Your task to perform on an android device: manage bookmarks in the chrome app Image 0: 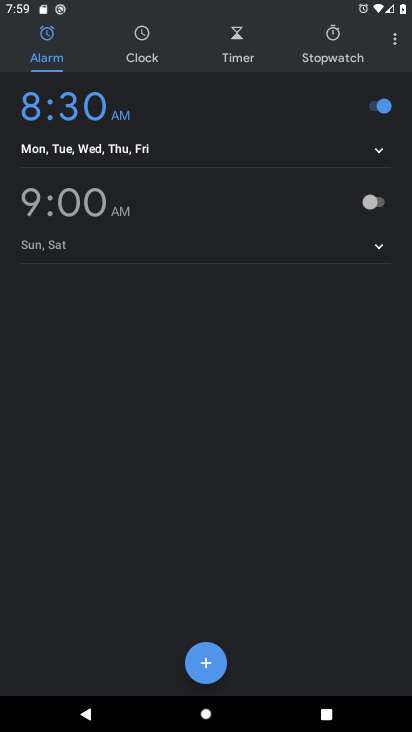
Step 0: press home button
Your task to perform on an android device: manage bookmarks in the chrome app Image 1: 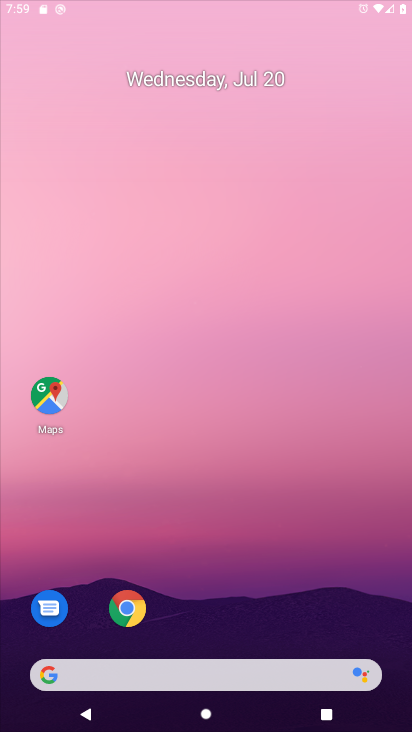
Step 1: drag from (280, 643) to (275, 364)
Your task to perform on an android device: manage bookmarks in the chrome app Image 2: 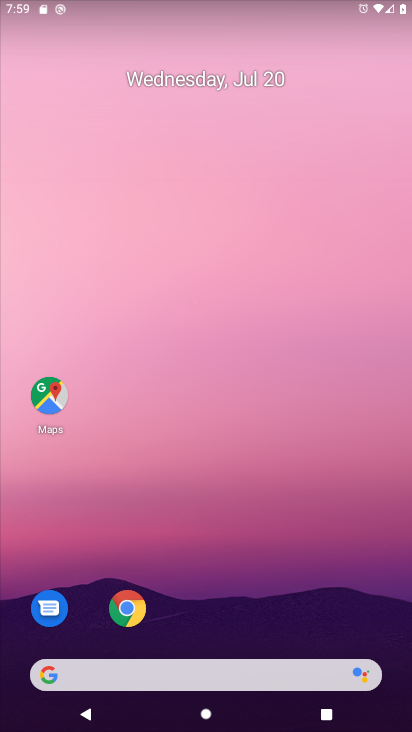
Step 2: click (120, 621)
Your task to perform on an android device: manage bookmarks in the chrome app Image 3: 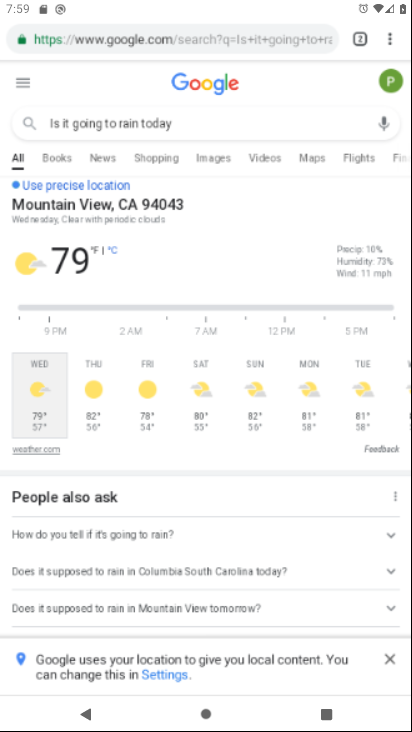
Step 3: click (390, 31)
Your task to perform on an android device: manage bookmarks in the chrome app Image 4: 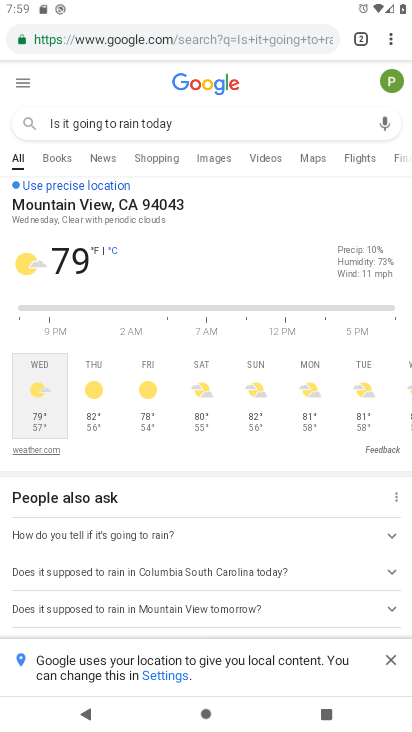
Step 4: click (395, 32)
Your task to perform on an android device: manage bookmarks in the chrome app Image 5: 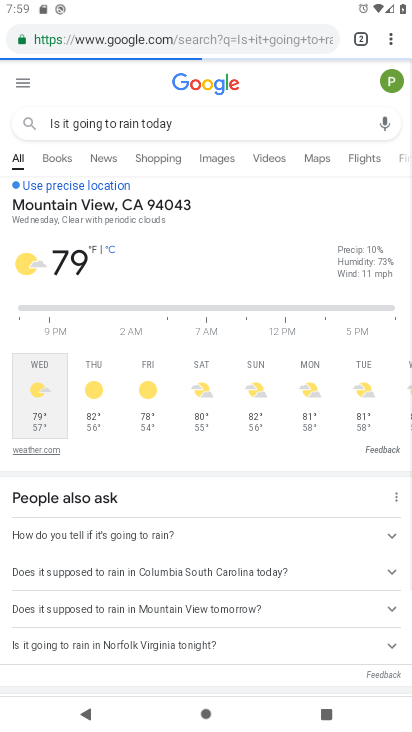
Step 5: click (394, 34)
Your task to perform on an android device: manage bookmarks in the chrome app Image 6: 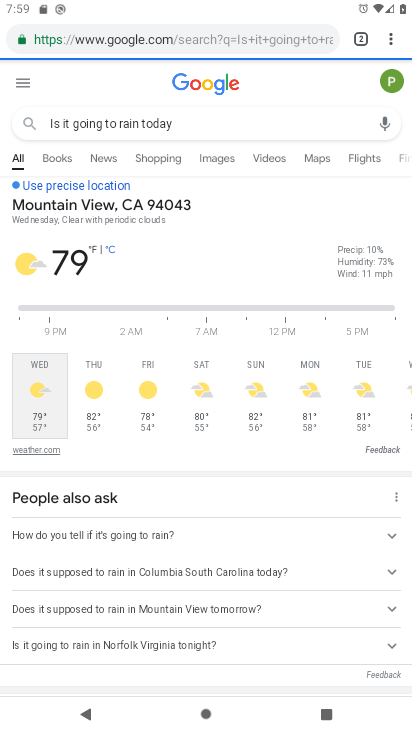
Step 6: click (383, 40)
Your task to perform on an android device: manage bookmarks in the chrome app Image 7: 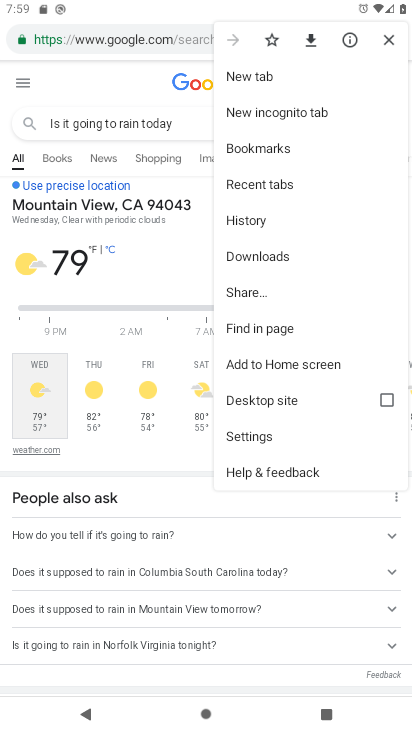
Step 7: click (274, 161)
Your task to perform on an android device: manage bookmarks in the chrome app Image 8: 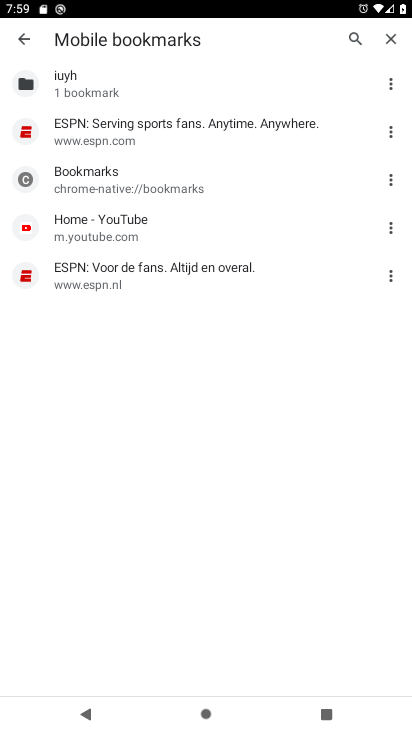
Step 8: click (102, 107)
Your task to perform on an android device: manage bookmarks in the chrome app Image 9: 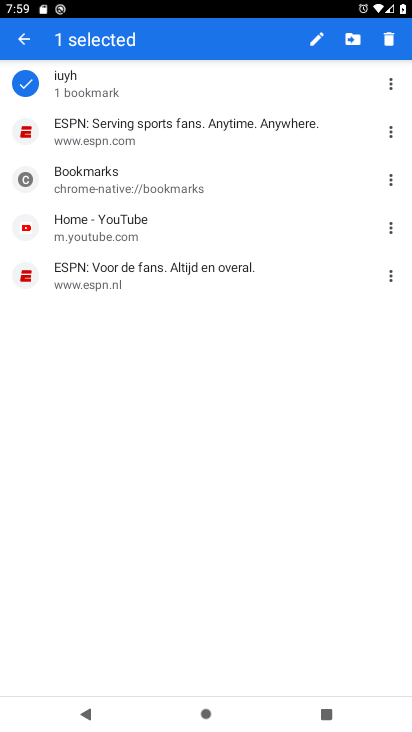
Step 9: click (88, 147)
Your task to perform on an android device: manage bookmarks in the chrome app Image 10: 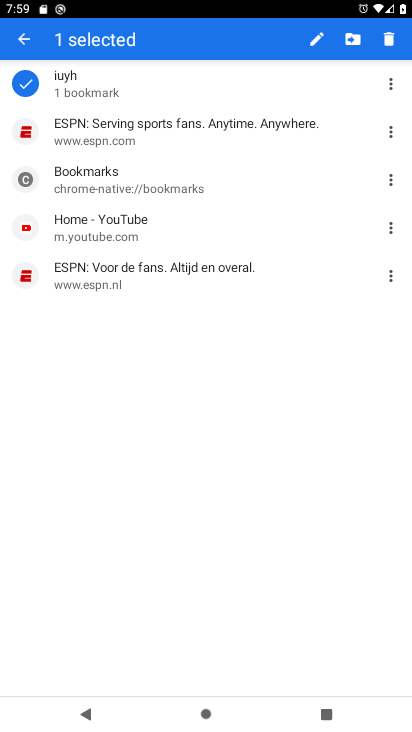
Step 10: drag from (86, 187) to (88, 248)
Your task to perform on an android device: manage bookmarks in the chrome app Image 11: 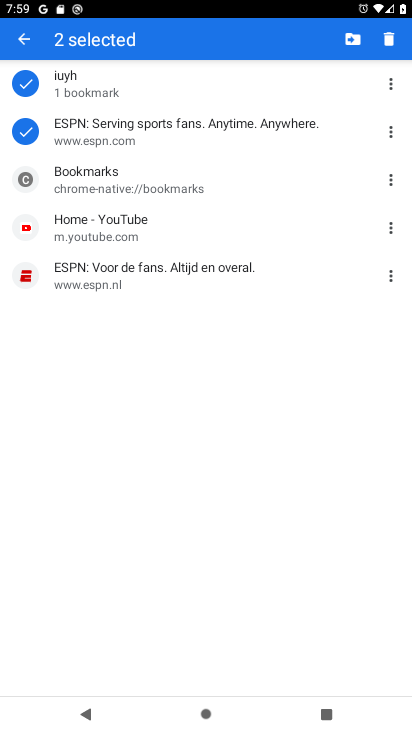
Step 11: click (350, 38)
Your task to perform on an android device: manage bookmarks in the chrome app Image 12: 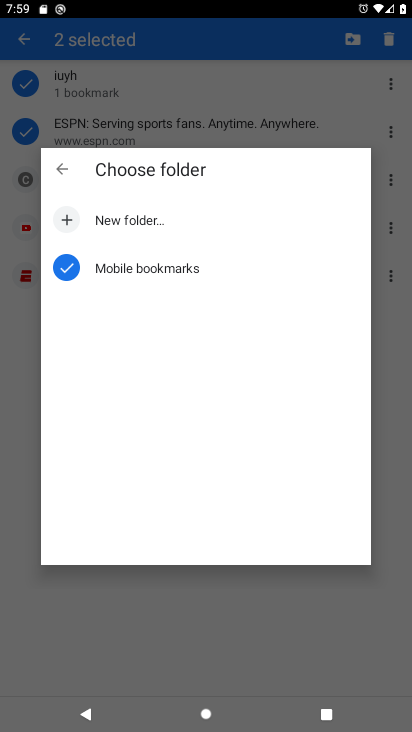
Step 12: click (136, 196)
Your task to perform on an android device: manage bookmarks in the chrome app Image 13: 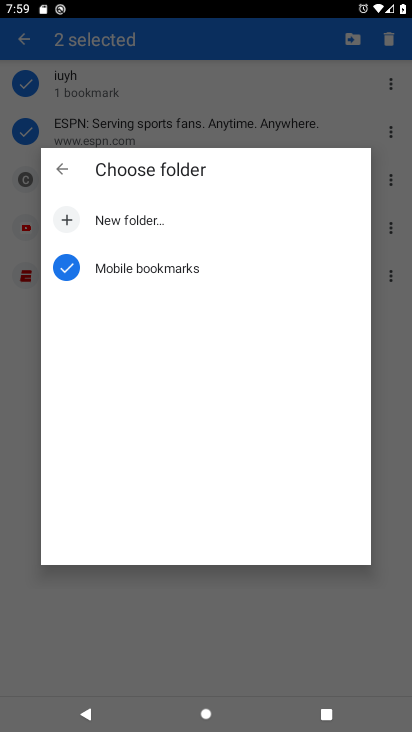
Step 13: click (136, 215)
Your task to perform on an android device: manage bookmarks in the chrome app Image 14: 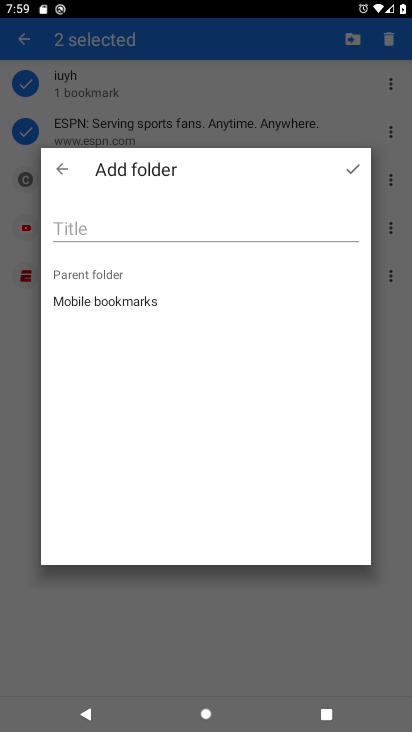
Step 14: click (128, 217)
Your task to perform on an android device: manage bookmarks in the chrome app Image 15: 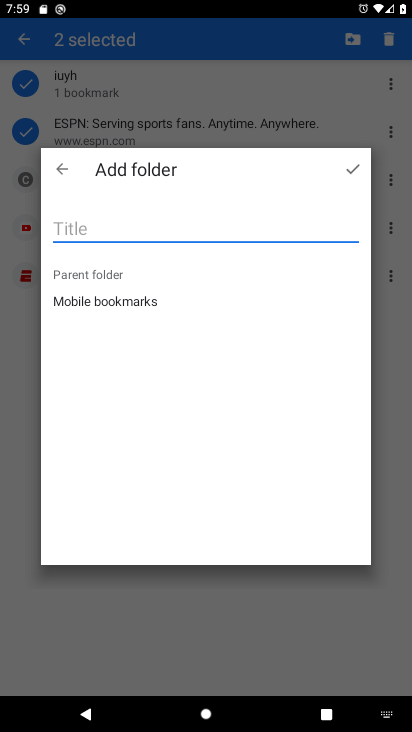
Step 15: type "pardeep "
Your task to perform on an android device: manage bookmarks in the chrome app Image 16: 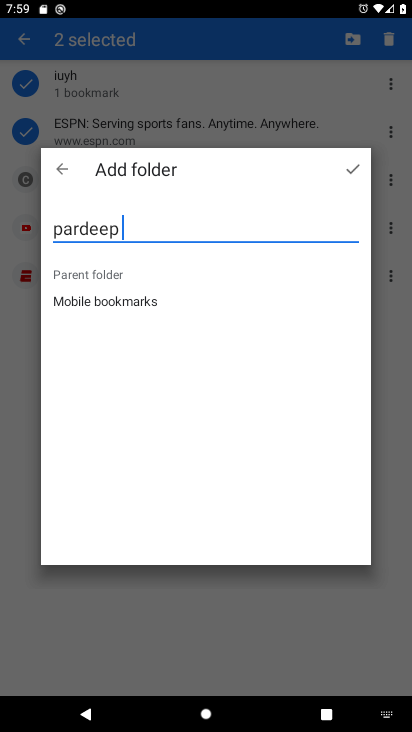
Step 16: click (363, 167)
Your task to perform on an android device: manage bookmarks in the chrome app Image 17: 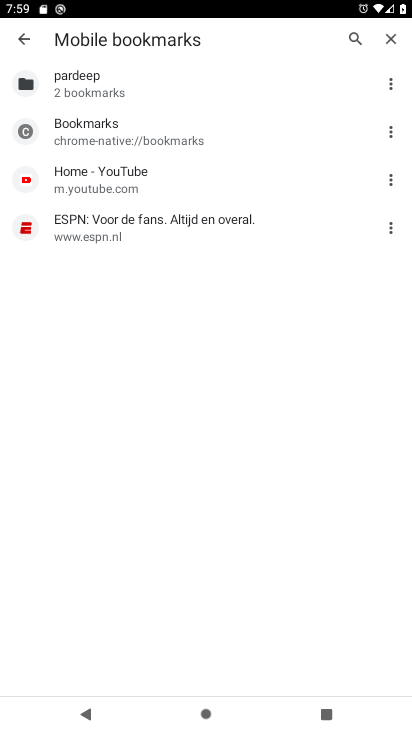
Step 17: task complete